Your task to perform on an android device: toggle notification dots Image 0: 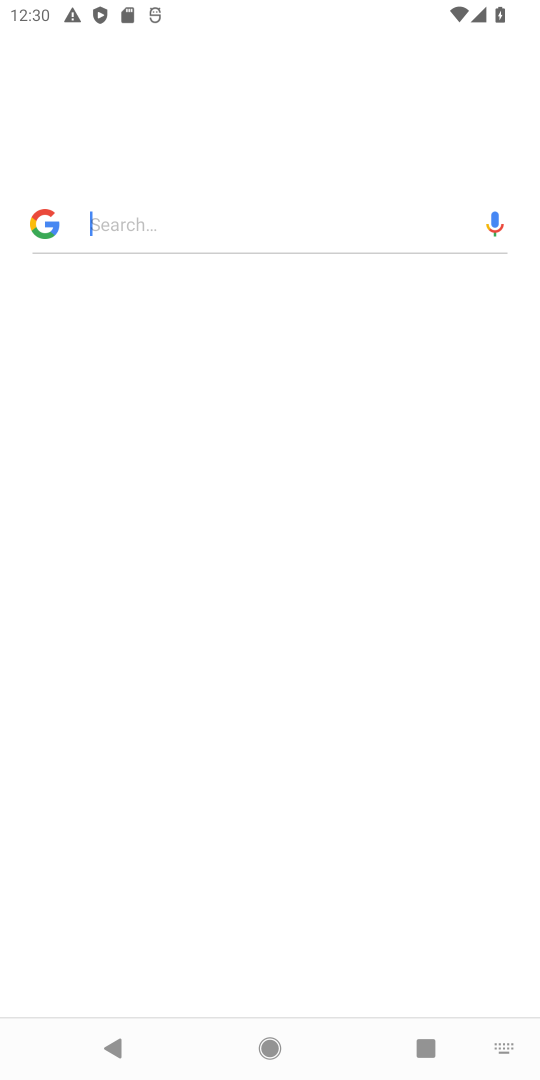
Step 0: press home button
Your task to perform on an android device: toggle notification dots Image 1: 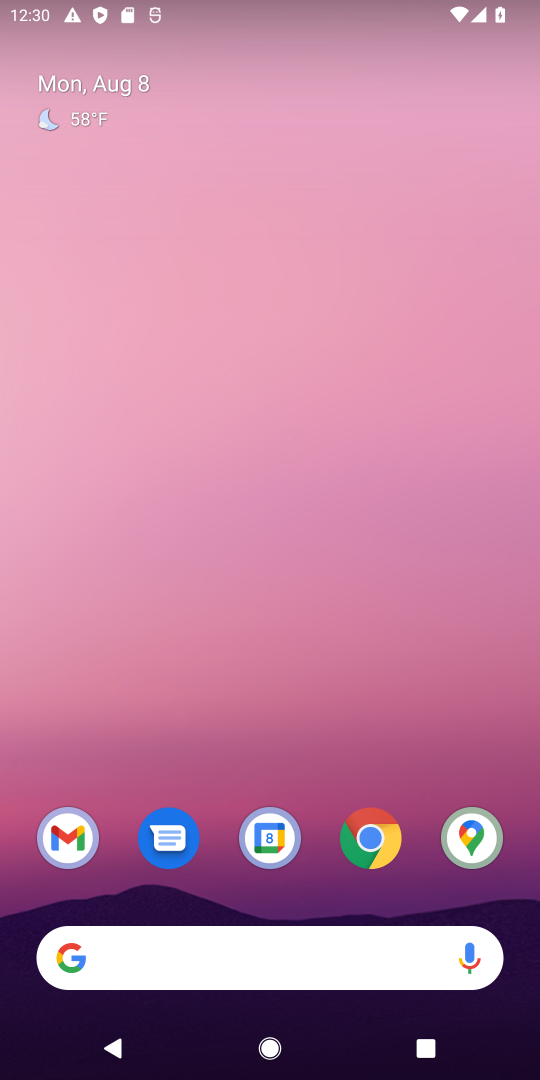
Step 1: drag from (305, 889) to (311, 247)
Your task to perform on an android device: toggle notification dots Image 2: 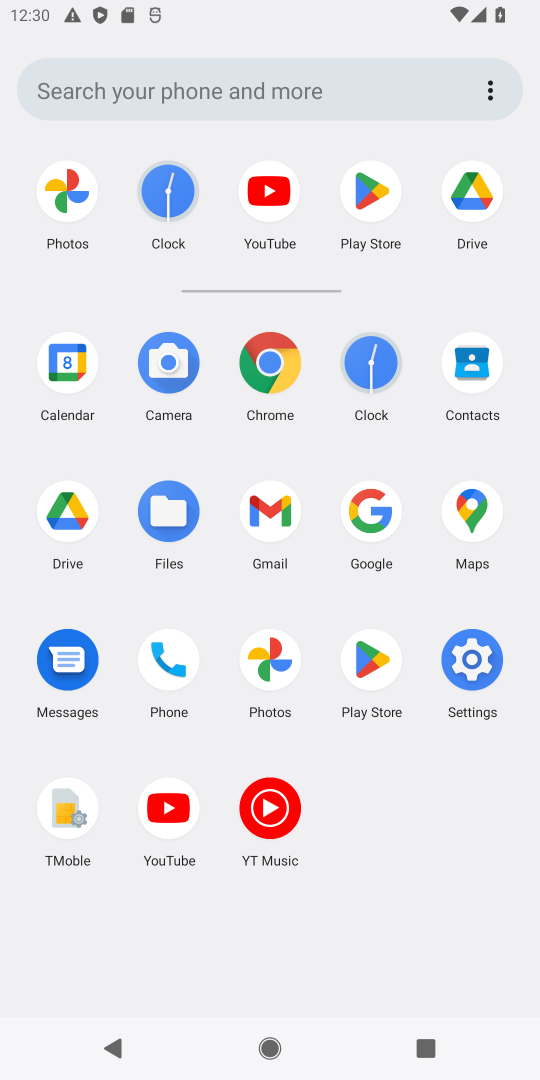
Step 2: click (475, 664)
Your task to perform on an android device: toggle notification dots Image 3: 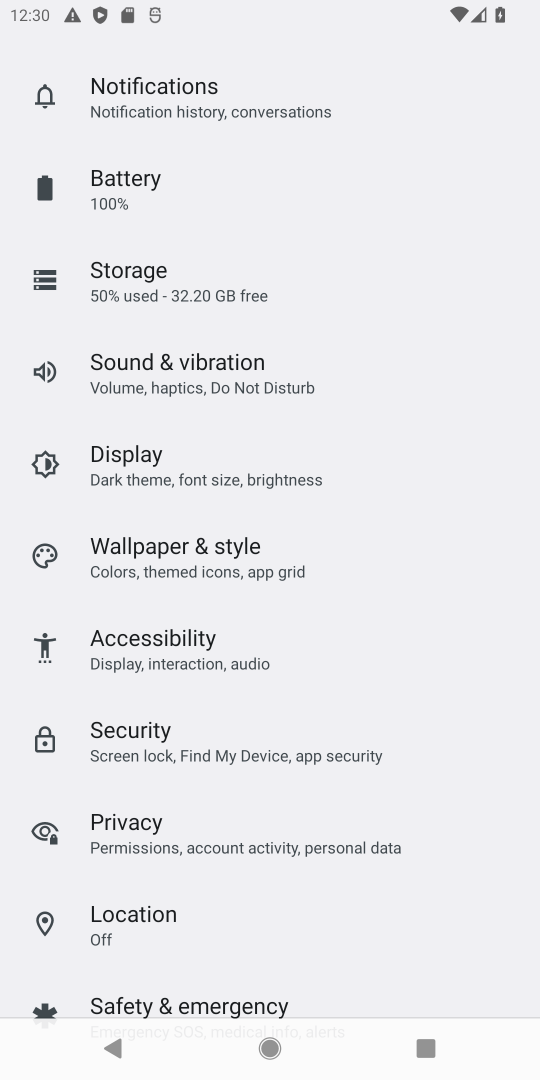
Step 3: click (168, 98)
Your task to perform on an android device: toggle notification dots Image 4: 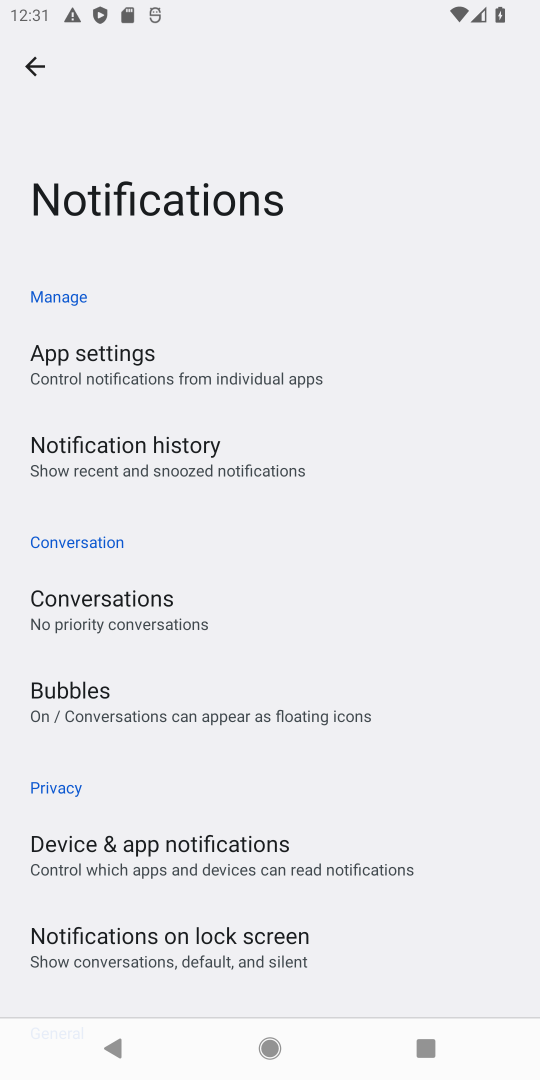
Step 4: drag from (478, 912) to (437, 466)
Your task to perform on an android device: toggle notification dots Image 5: 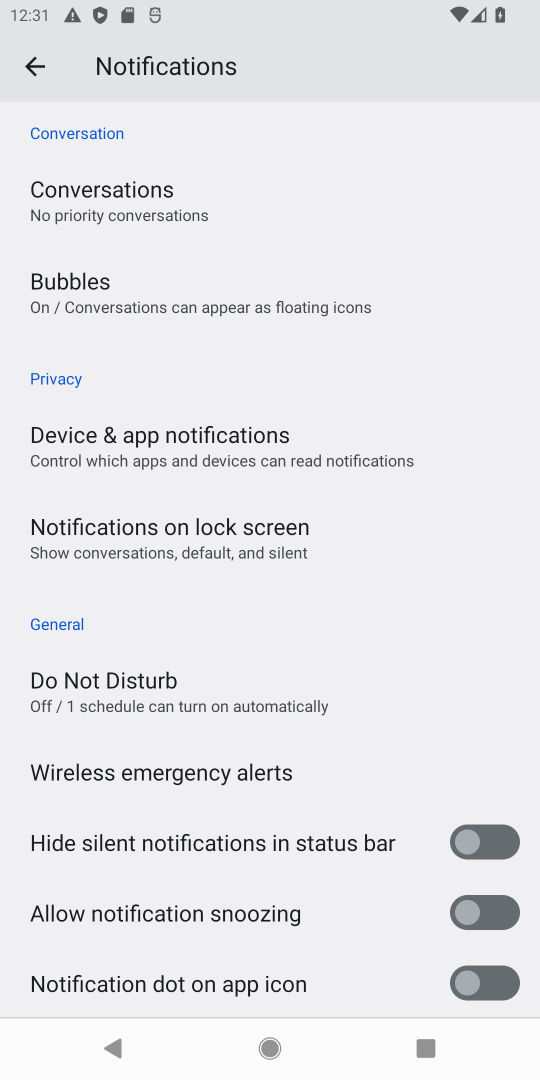
Step 5: click (465, 982)
Your task to perform on an android device: toggle notification dots Image 6: 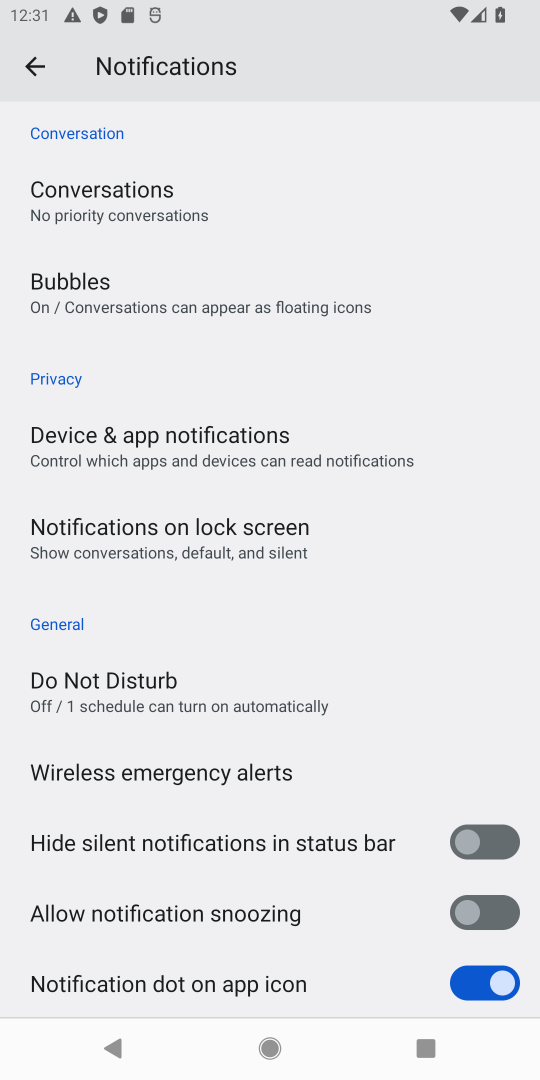
Step 6: task complete